Your task to perform on an android device: create a new album in the google photos Image 0: 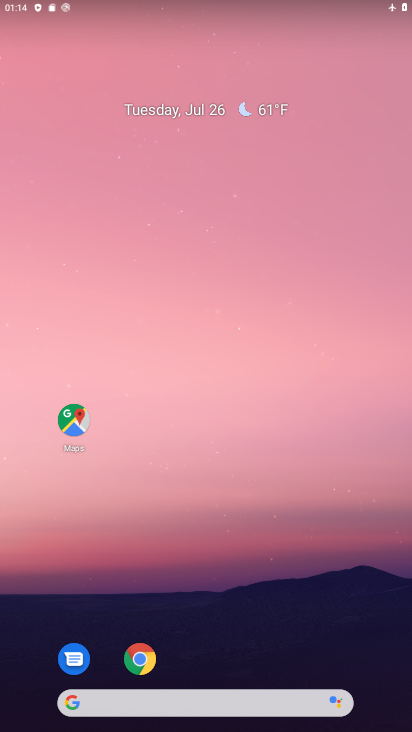
Step 0: drag from (310, 658) to (299, 39)
Your task to perform on an android device: create a new album in the google photos Image 1: 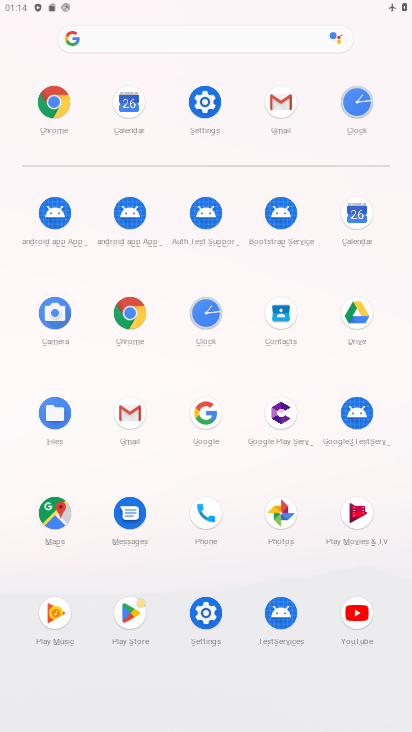
Step 1: click (273, 511)
Your task to perform on an android device: create a new album in the google photos Image 2: 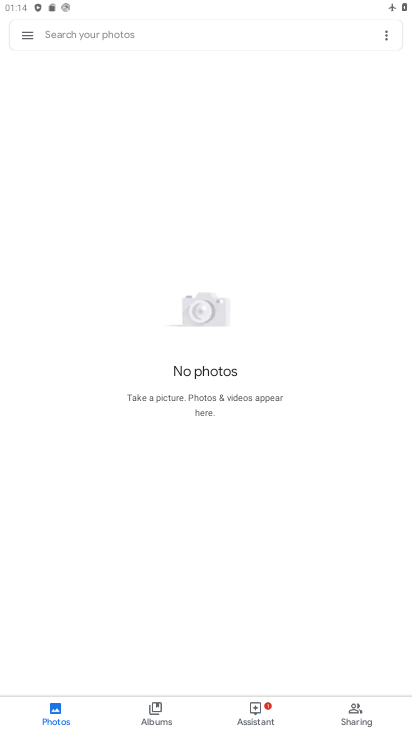
Step 2: task complete